Your task to perform on an android device: visit the assistant section in the google photos Image 0: 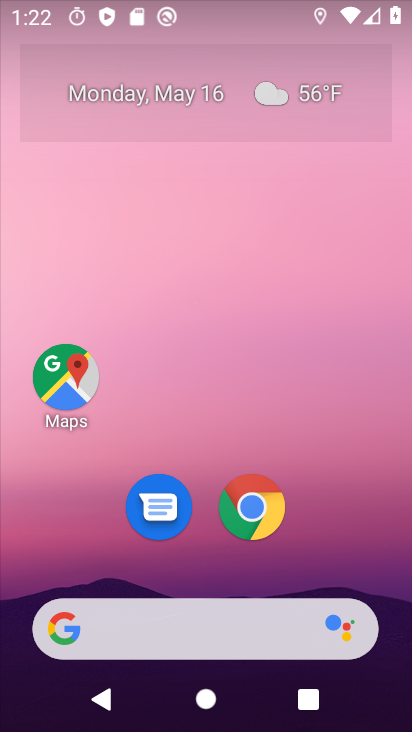
Step 0: drag from (183, 551) to (210, 112)
Your task to perform on an android device: visit the assistant section in the google photos Image 1: 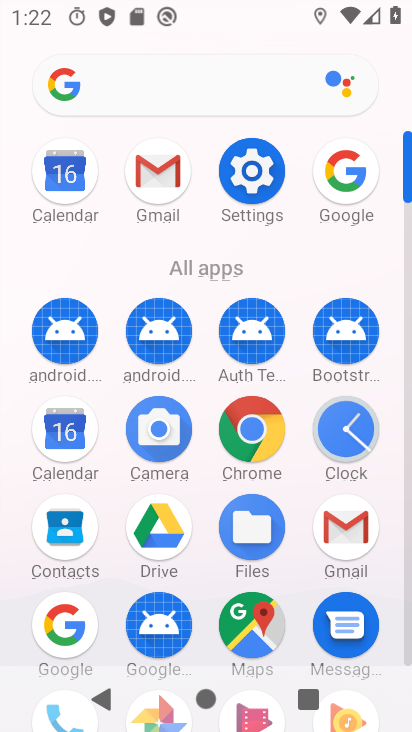
Step 1: drag from (203, 571) to (188, 174)
Your task to perform on an android device: visit the assistant section in the google photos Image 2: 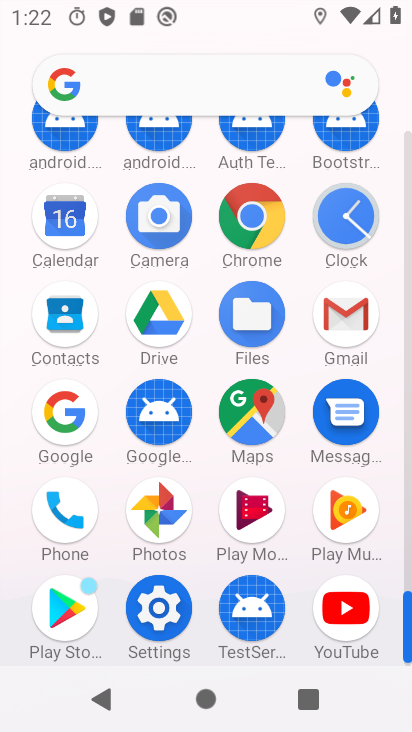
Step 2: click (162, 493)
Your task to perform on an android device: visit the assistant section in the google photos Image 3: 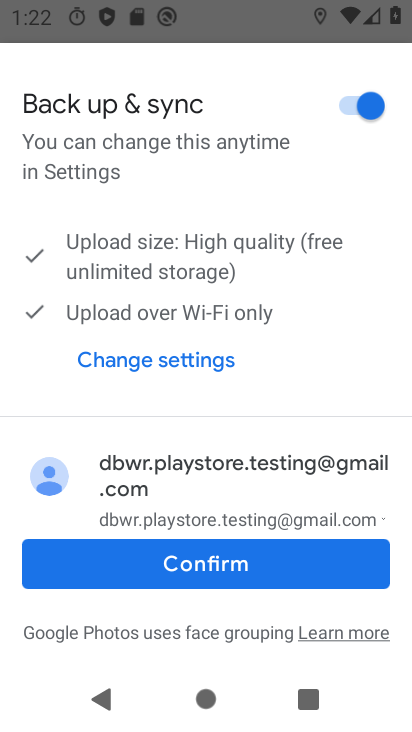
Step 3: click (244, 559)
Your task to perform on an android device: visit the assistant section in the google photos Image 4: 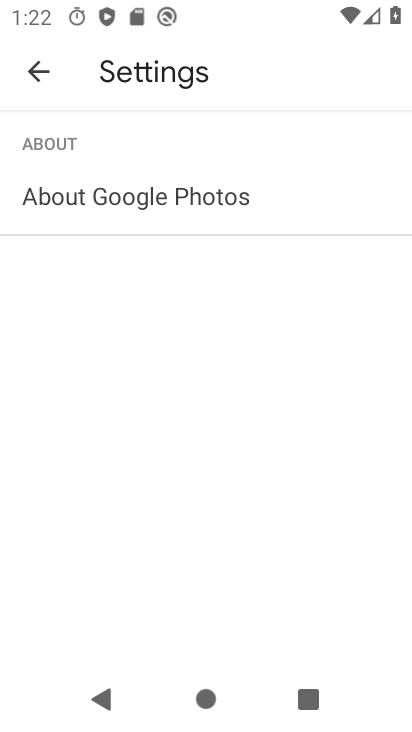
Step 4: press back button
Your task to perform on an android device: visit the assistant section in the google photos Image 5: 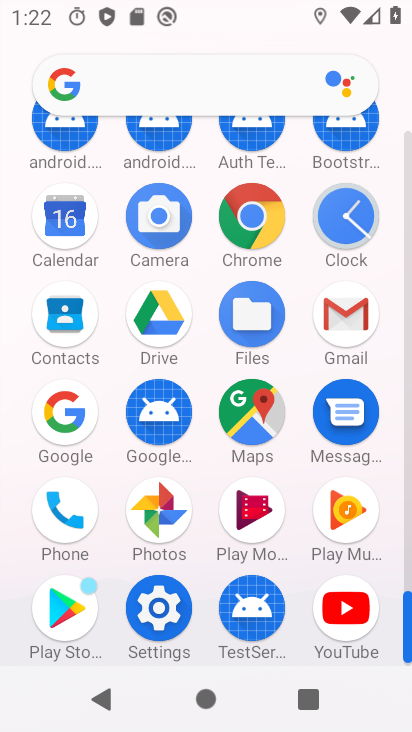
Step 5: click (169, 512)
Your task to perform on an android device: visit the assistant section in the google photos Image 6: 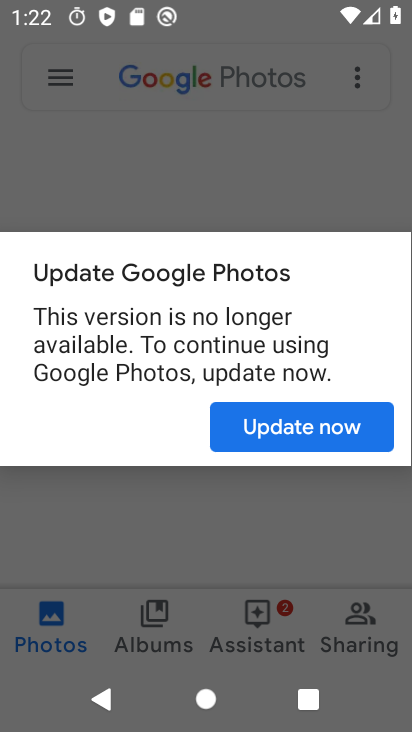
Step 6: click (296, 425)
Your task to perform on an android device: visit the assistant section in the google photos Image 7: 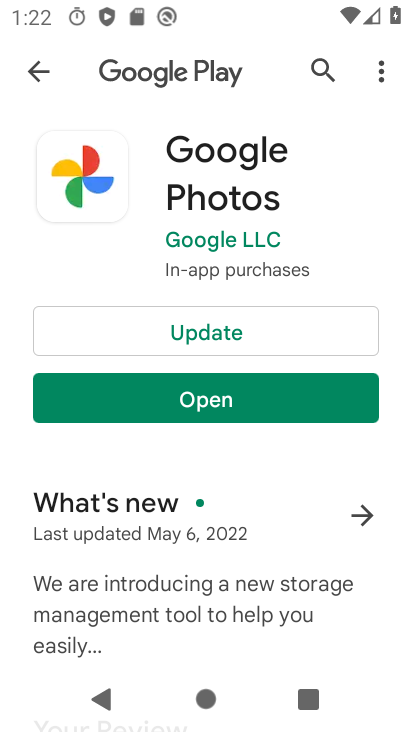
Step 7: click (180, 333)
Your task to perform on an android device: visit the assistant section in the google photos Image 8: 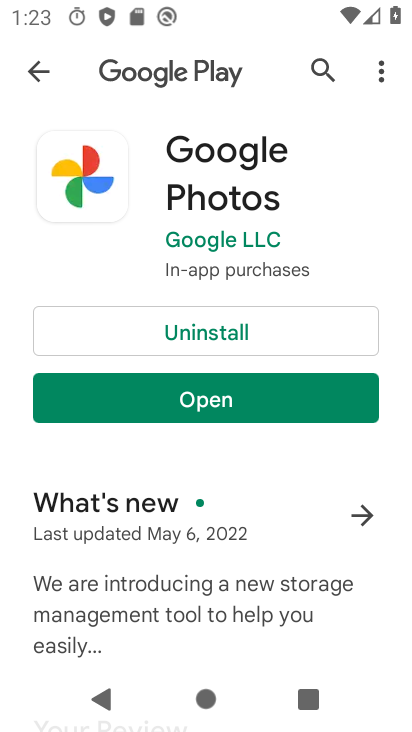
Step 8: click (203, 401)
Your task to perform on an android device: visit the assistant section in the google photos Image 9: 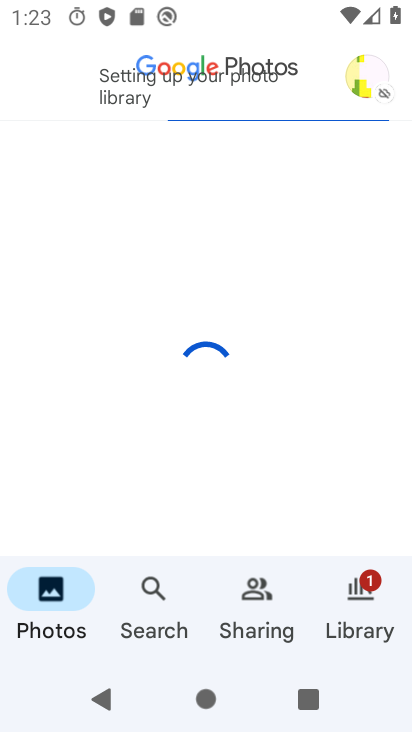
Step 9: task complete